Your task to perform on an android device: toggle priority inbox in the gmail app Image 0: 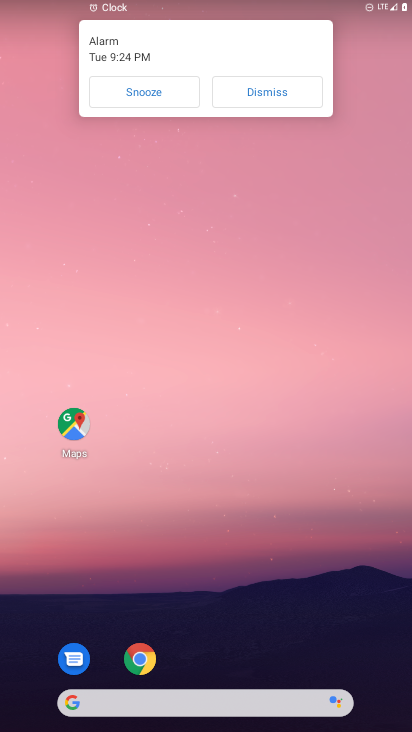
Step 0: press home button
Your task to perform on an android device: toggle priority inbox in the gmail app Image 1: 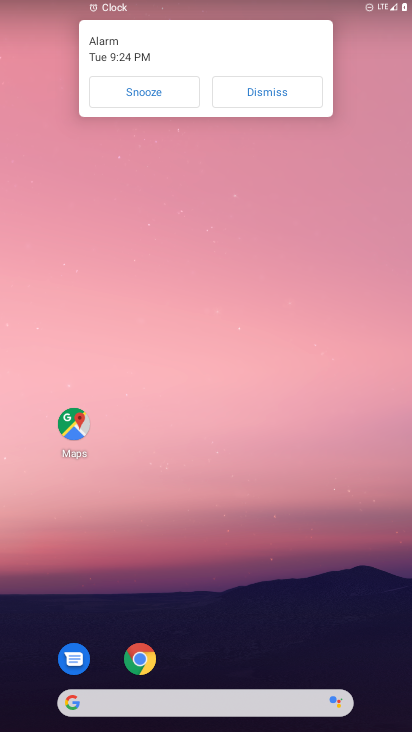
Step 1: click (245, 97)
Your task to perform on an android device: toggle priority inbox in the gmail app Image 2: 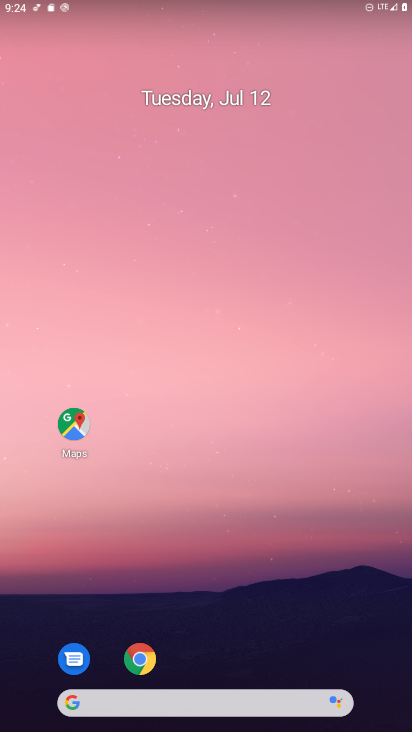
Step 2: drag from (234, 694) to (261, 116)
Your task to perform on an android device: toggle priority inbox in the gmail app Image 3: 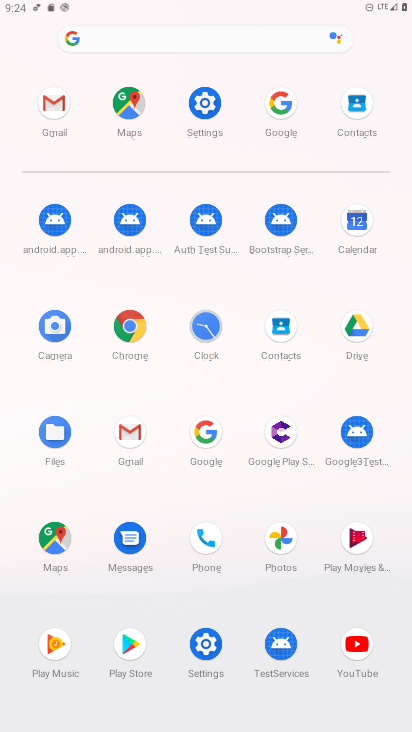
Step 3: click (131, 432)
Your task to perform on an android device: toggle priority inbox in the gmail app Image 4: 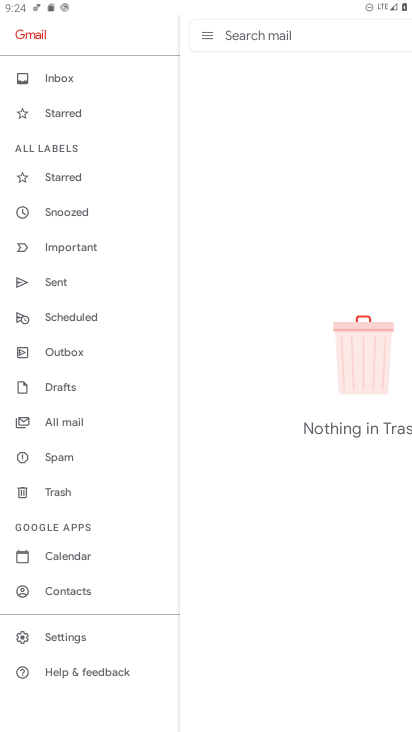
Step 4: click (69, 637)
Your task to perform on an android device: toggle priority inbox in the gmail app Image 5: 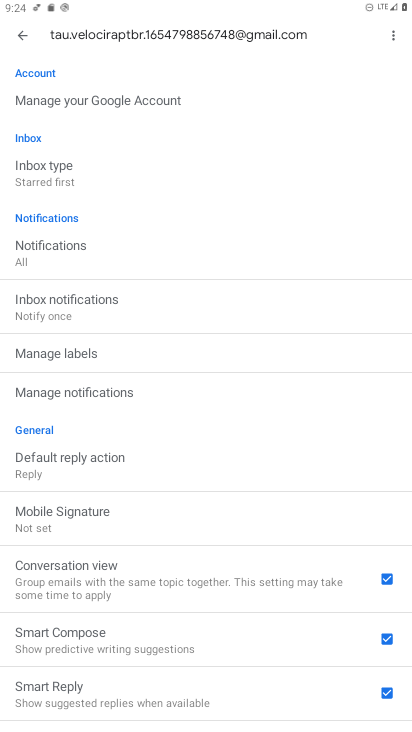
Step 5: click (55, 183)
Your task to perform on an android device: toggle priority inbox in the gmail app Image 6: 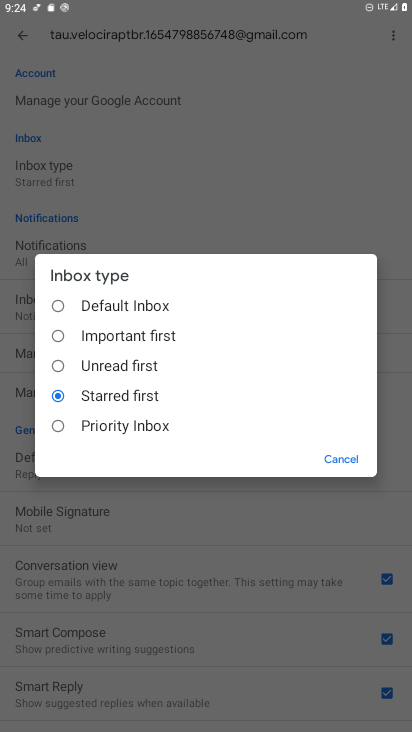
Step 6: click (58, 430)
Your task to perform on an android device: toggle priority inbox in the gmail app Image 7: 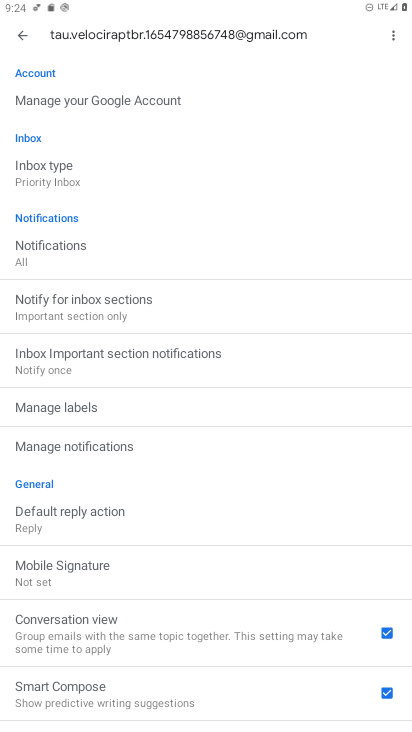
Step 7: task complete